Your task to perform on an android device: Do I have any events this weekend? Image 0: 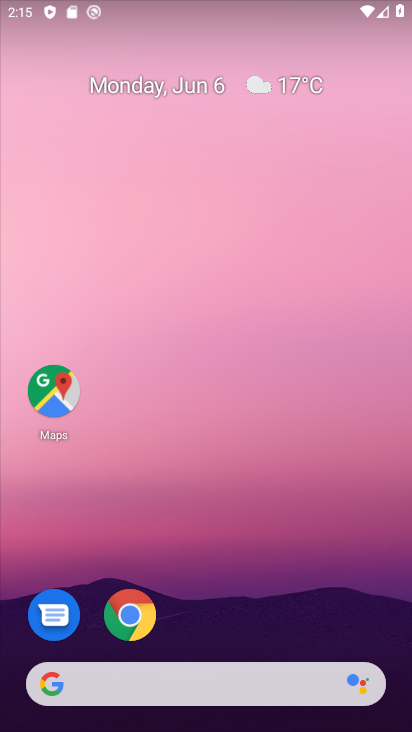
Step 0: drag from (235, 704) to (331, 3)
Your task to perform on an android device: Do I have any events this weekend? Image 1: 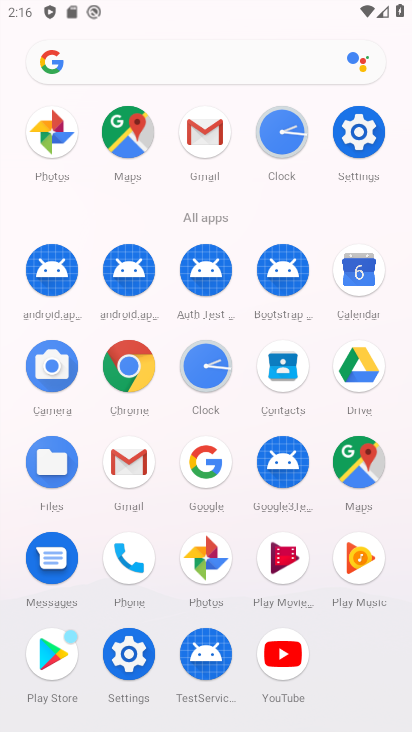
Step 1: click (355, 270)
Your task to perform on an android device: Do I have any events this weekend? Image 2: 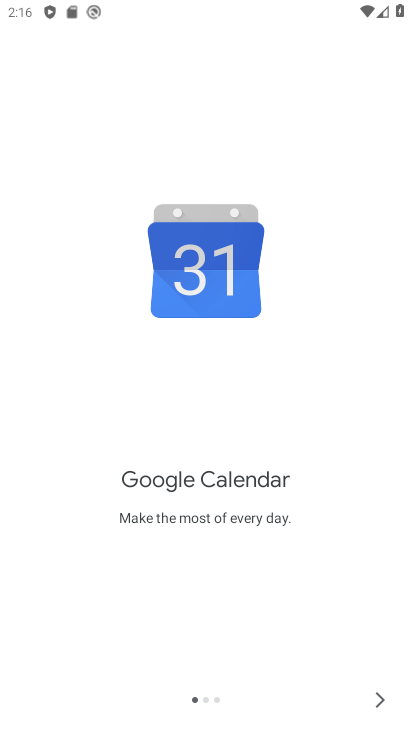
Step 2: click (373, 692)
Your task to perform on an android device: Do I have any events this weekend? Image 3: 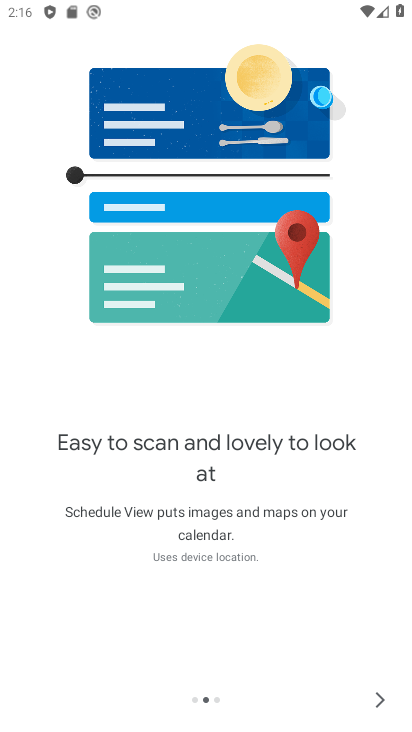
Step 3: click (374, 692)
Your task to perform on an android device: Do I have any events this weekend? Image 4: 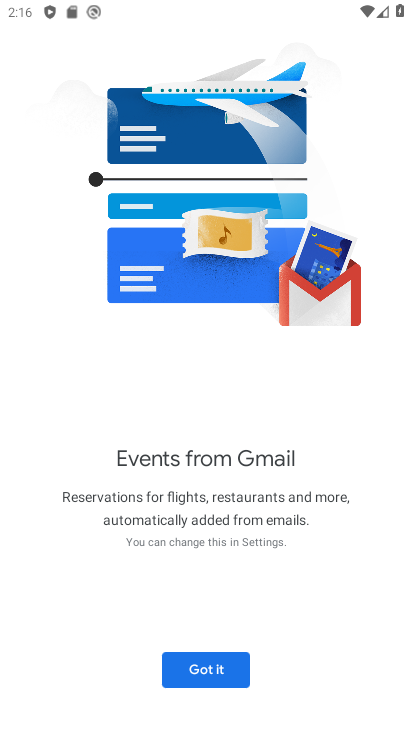
Step 4: click (201, 676)
Your task to perform on an android device: Do I have any events this weekend? Image 5: 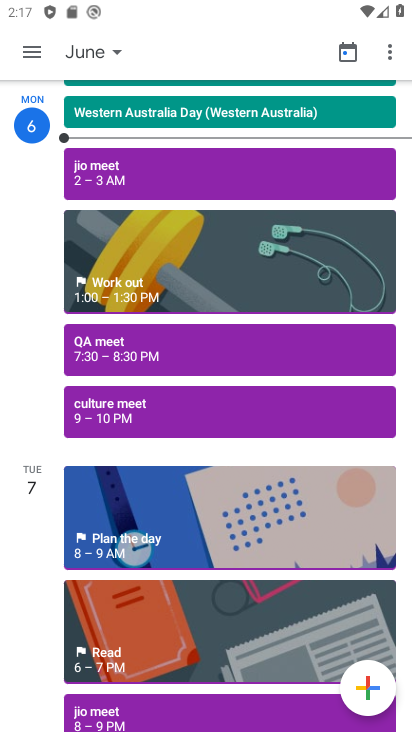
Step 5: press home button
Your task to perform on an android device: Do I have any events this weekend? Image 6: 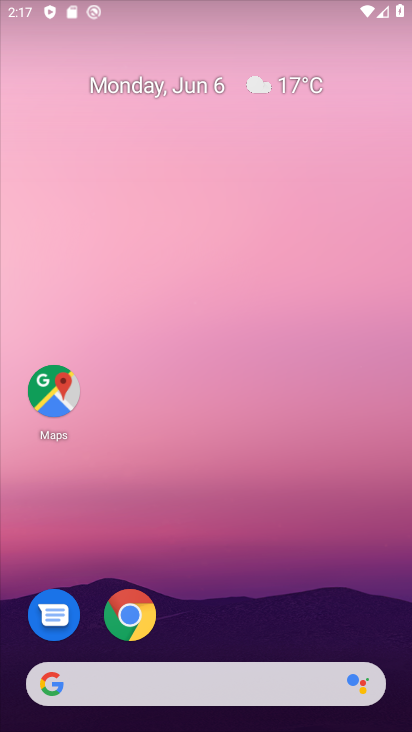
Step 6: drag from (36, 294) to (361, 313)
Your task to perform on an android device: Do I have any events this weekend? Image 7: 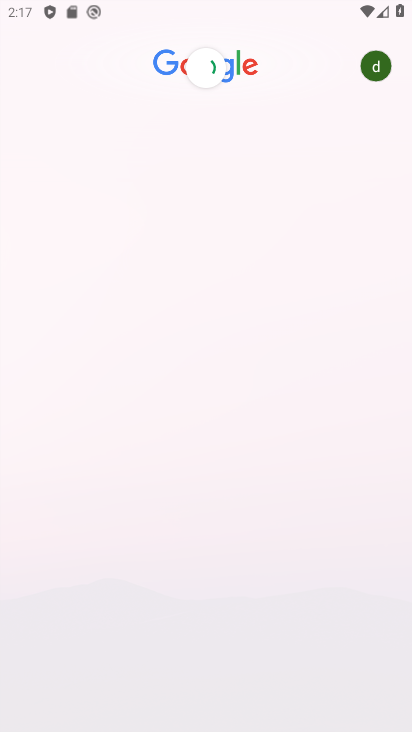
Step 7: press home button
Your task to perform on an android device: Do I have any events this weekend? Image 8: 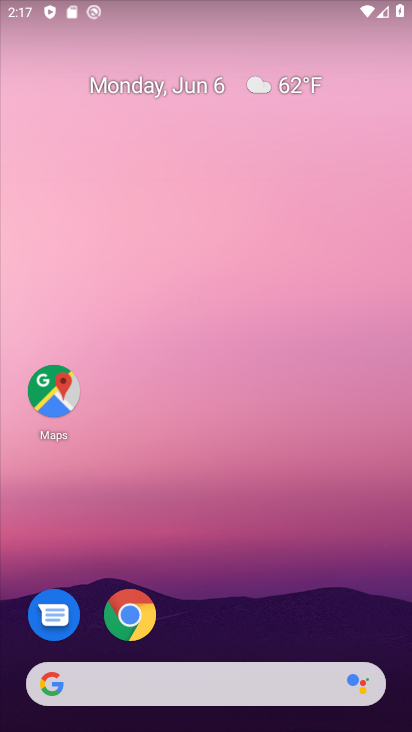
Step 8: drag from (378, 475) to (373, 5)
Your task to perform on an android device: Do I have any events this weekend? Image 9: 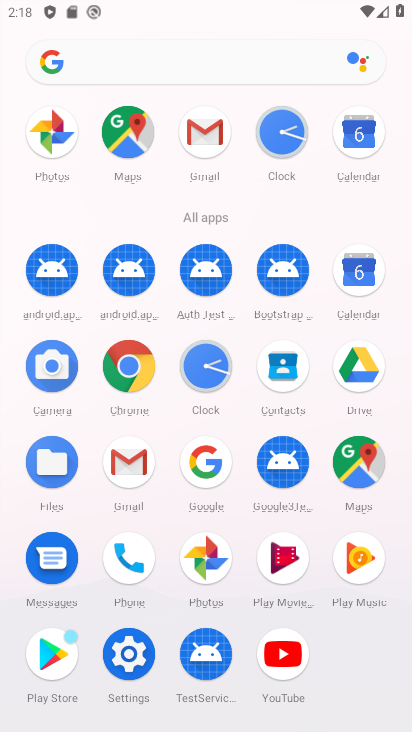
Step 9: click (369, 265)
Your task to perform on an android device: Do I have any events this weekend? Image 10: 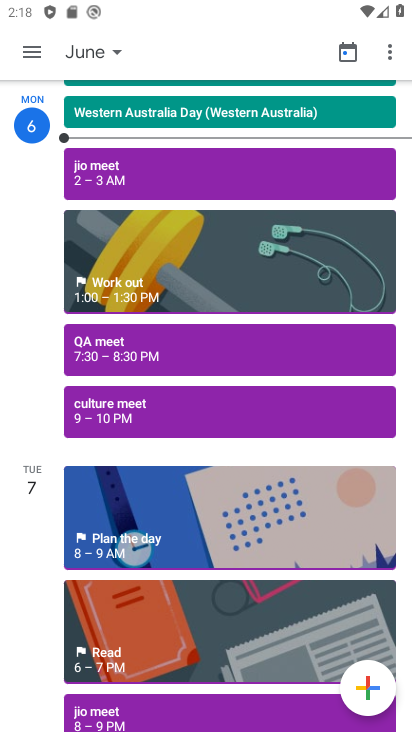
Step 10: task complete